Your task to perform on an android device: Go to Amazon Image 0: 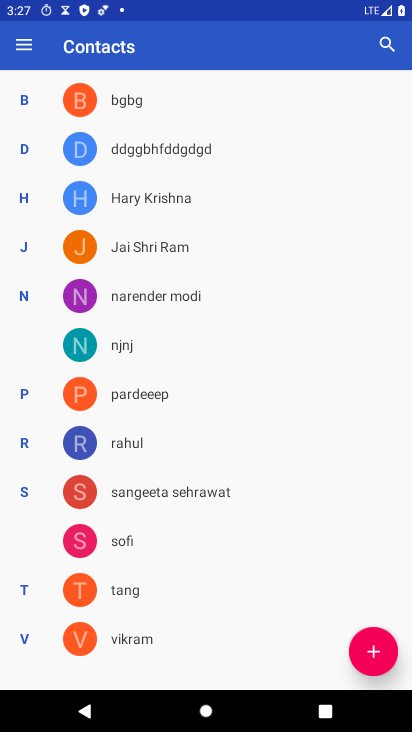
Step 0: press home button
Your task to perform on an android device: Go to Amazon Image 1: 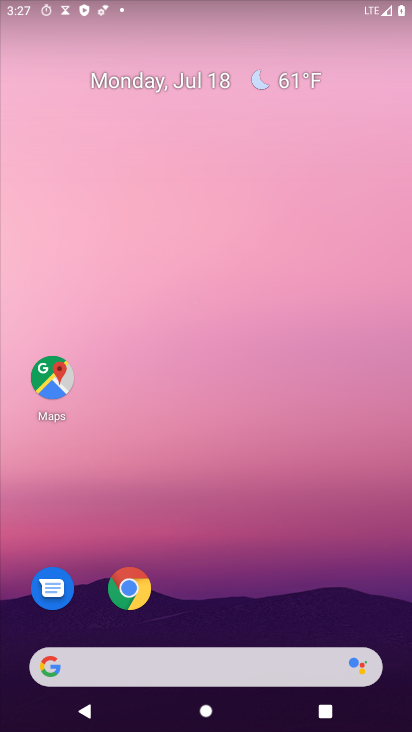
Step 1: drag from (247, 489) to (222, 48)
Your task to perform on an android device: Go to Amazon Image 2: 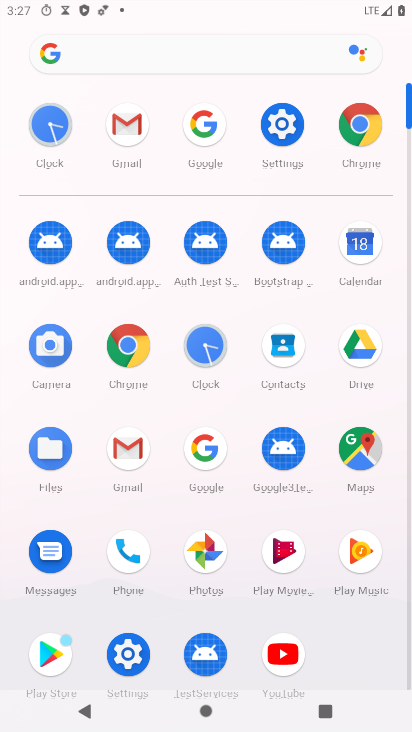
Step 2: click (367, 128)
Your task to perform on an android device: Go to Amazon Image 3: 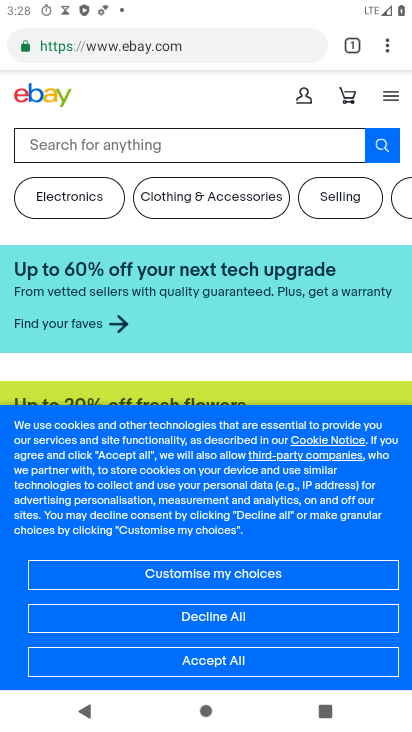
Step 3: press back button
Your task to perform on an android device: Go to Amazon Image 4: 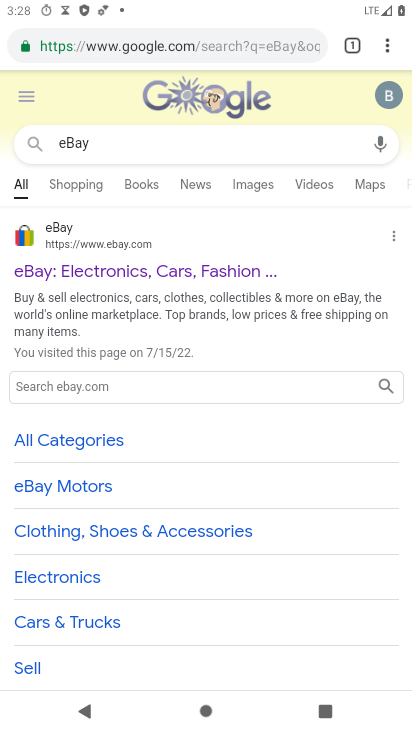
Step 4: press back button
Your task to perform on an android device: Go to Amazon Image 5: 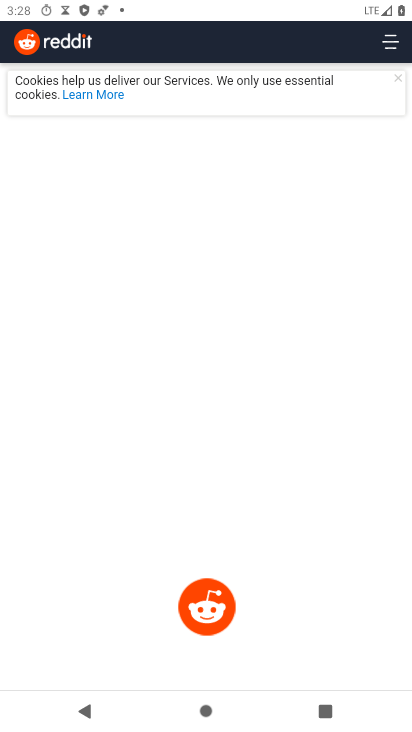
Step 5: press back button
Your task to perform on an android device: Go to Amazon Image 6: 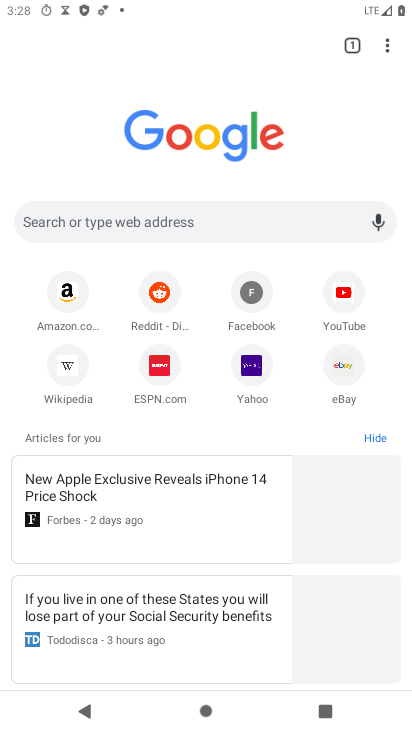
Step 6: press back button
Your task to perform on an android device: Go to Amazon Image 7: 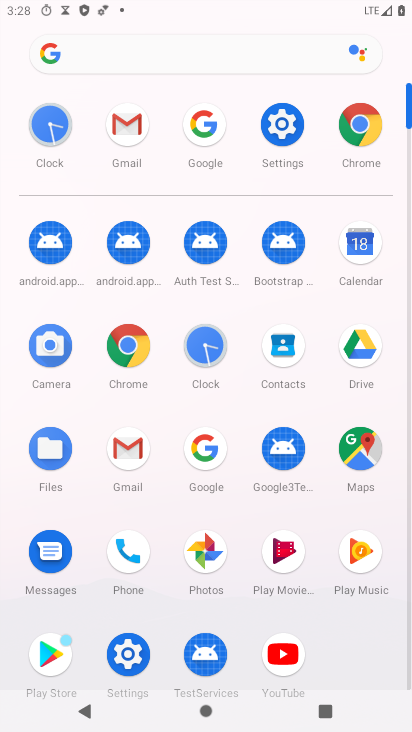
Step 7: click (361, 135)
Your task to perform on an android device: Go to Amazon Image 8: 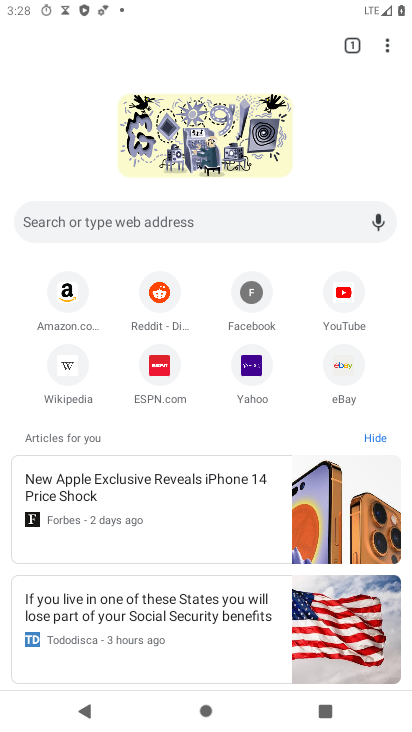
Step 8: click (63, 291)
Your task to perform on an android device: Go to Amazon Image 9: 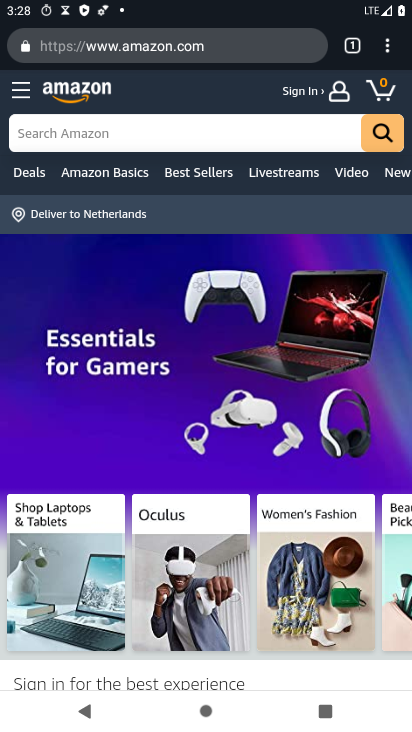
Step 9: task complete